Your task to perform on an android device: Open my contact list Image 0: 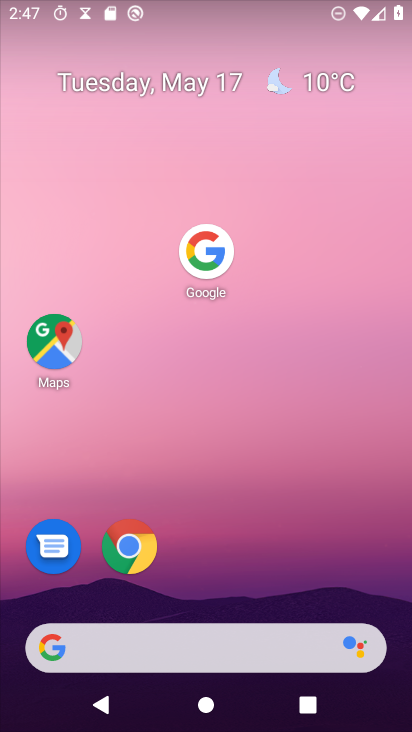
Step 0: press home button
Your task to perform on an android device: Open my contact list Image 1: 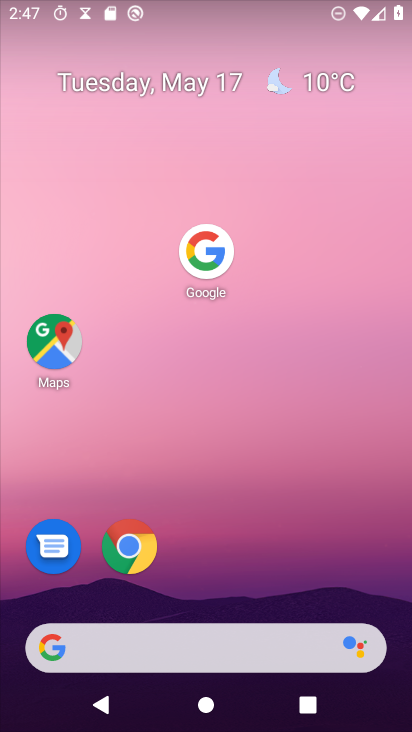
Step 1: drag from (151, 648) to (345, 119)
Your task to perform on an android device: Open my contact list Image 2: 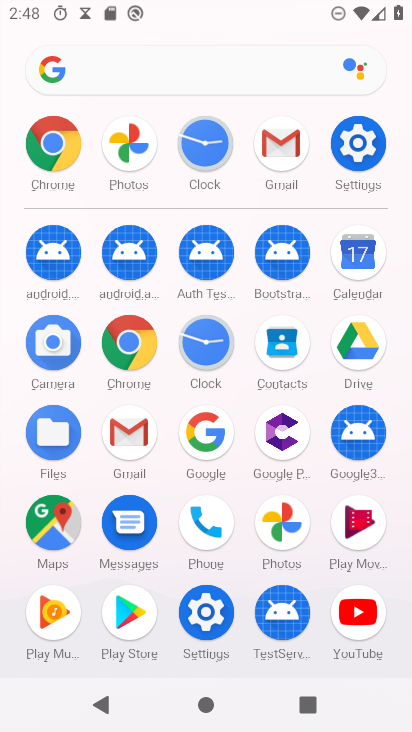
Step 2: click (279, 345)
Your task to perform on an android device: Open my contact list Image 3: 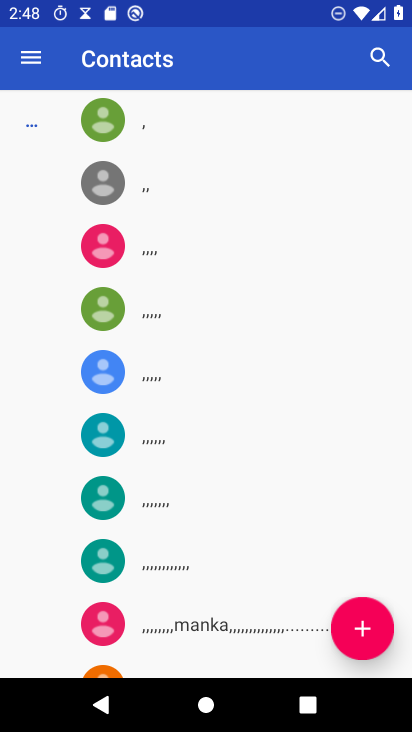
Step 3: task complete